Your task to perform on an android device: turn on notifications settings in the gmail app Image 0: 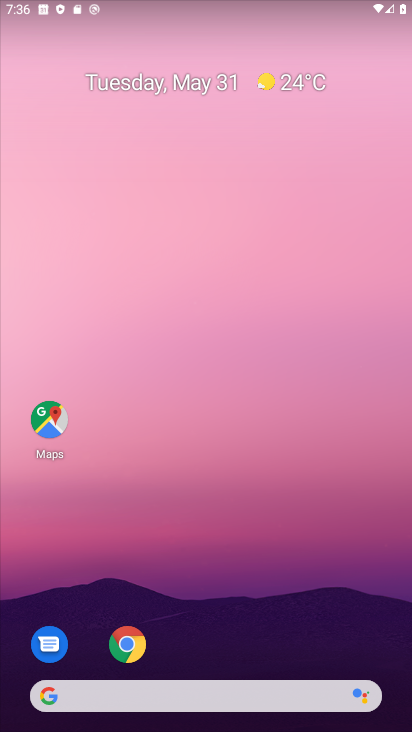
Step 0: drag from (307, 587) to (345, 252)
Your task to perform on an android device: turn on notifications settings in the gmail app Image 1: 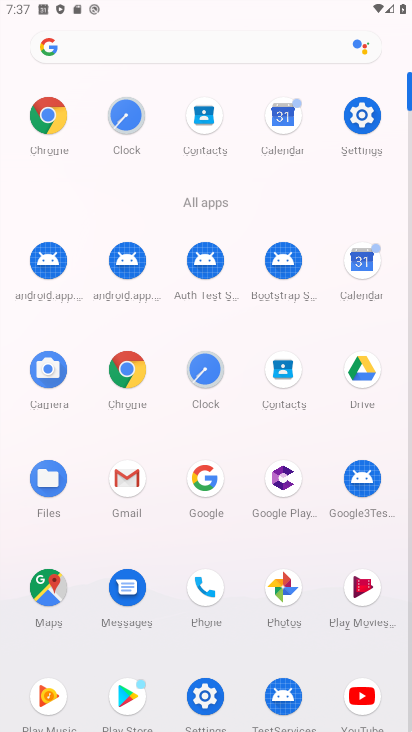
Step 1: click (128, 485)
Your task to perform on an android device: turn on notifications settings in the gmail app Image 2: 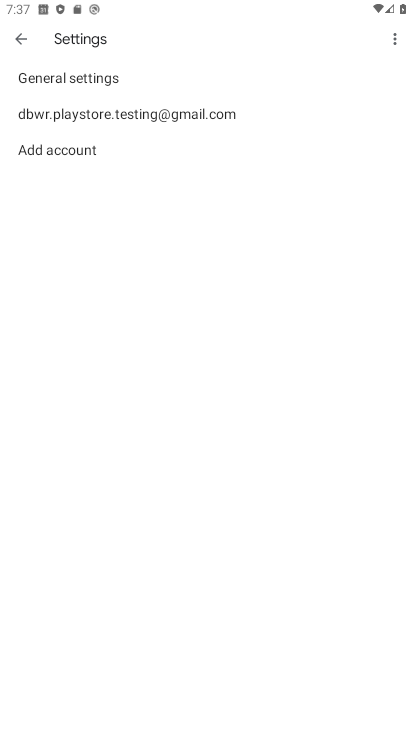
Step 2: click (209, 121)
Your task to perform on an android device: turn on notifications settings in the gmail app Image 3: 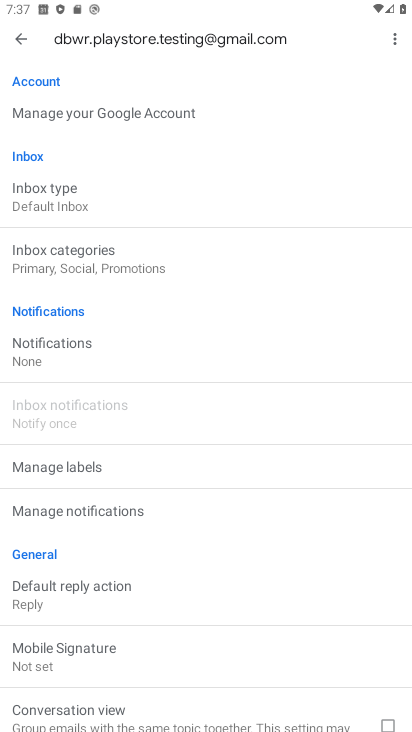
Step 3: click (120, 355)
Your task to perform on an android device: turn on notifications settings in the gmail app Image 4: 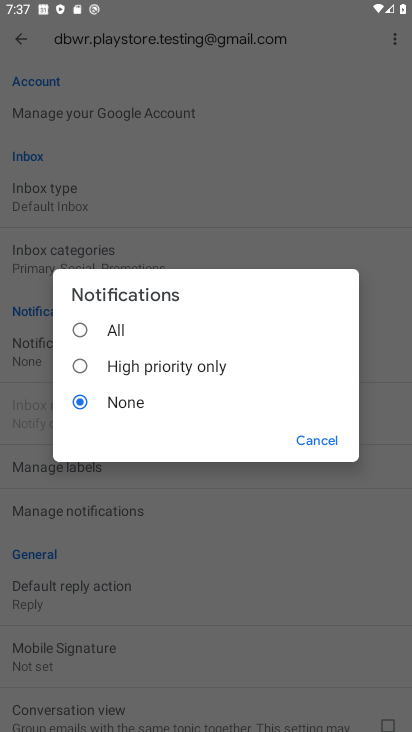
Step 4: click (118, 337)
Your task to perform on an android device: turn on notifications settings in the gmail app Image 5: 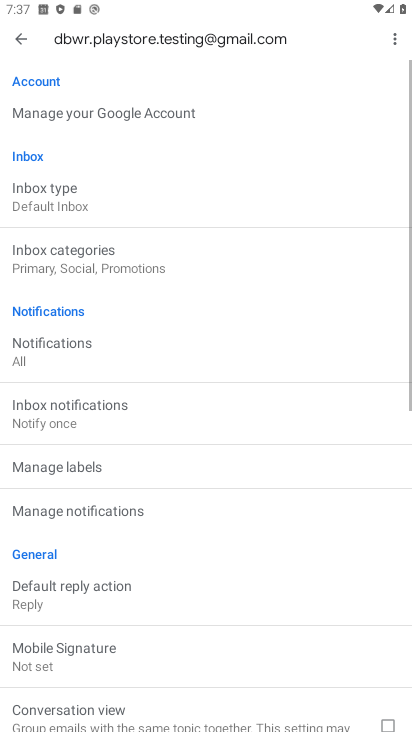
Step 5: task complete